Your task to perform on an android device: manage bookmarks in the chrome app Image 0: 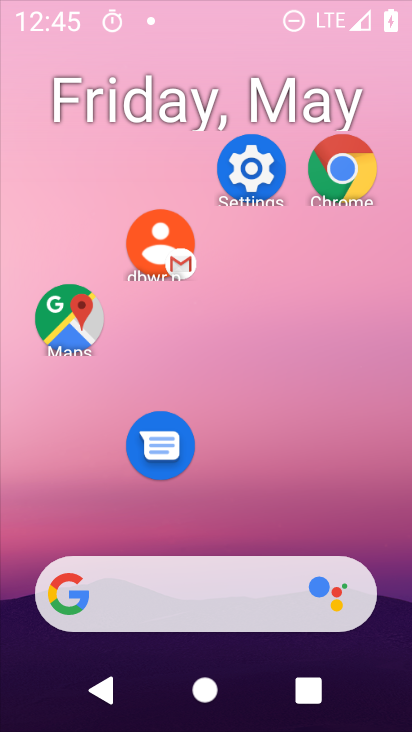
Step 0: click (256, 71)
Your task to perform on an android device: manage bookmarks in the chrome app Image 1: 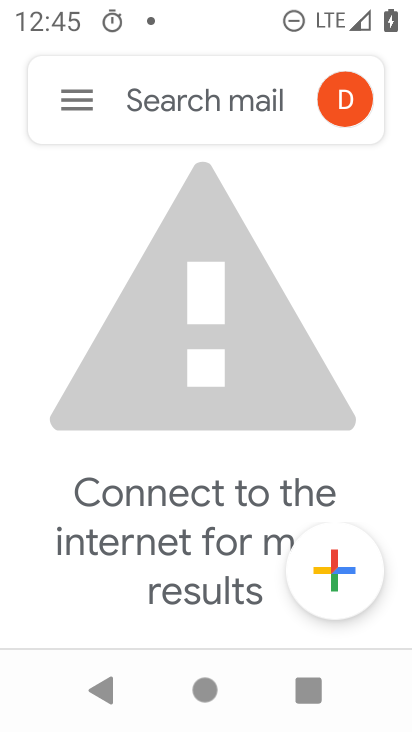
Step 1: drag from (106, 581) to (222, 138)
Your task to perform on an android device: manage bookmarks in the chrome app Image 2: 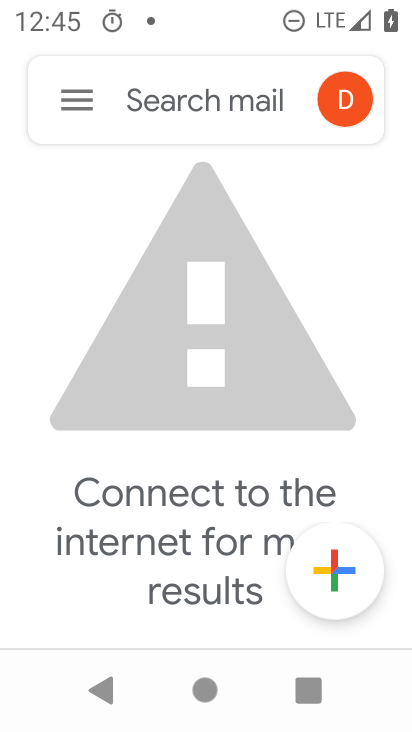
Step 2: click (84, 104)
Your task to perform on an android device: manage bookmarks in the chrome app Image 3: 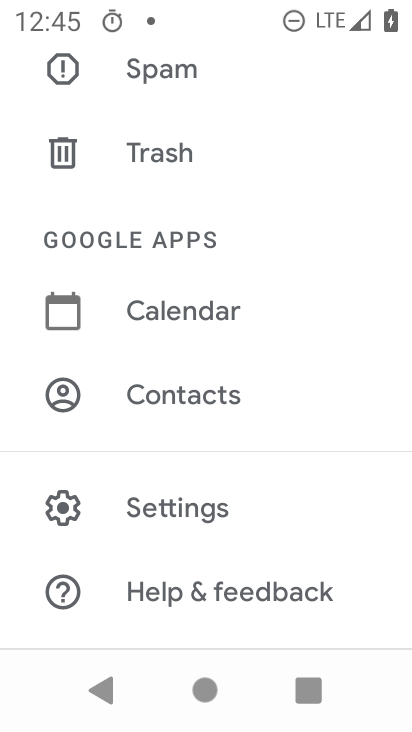
Step 3: press home button
Your task to perform on an android device: manage bookmarks in the chrome app Image 4: 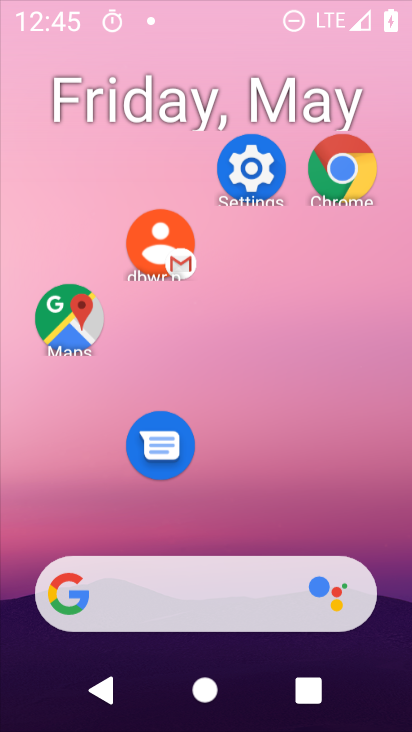
Step 4: drag from (234, 541) to (310, 105)
Your task to perform on an android device: manage bookmarks in the chrome app Image 5: 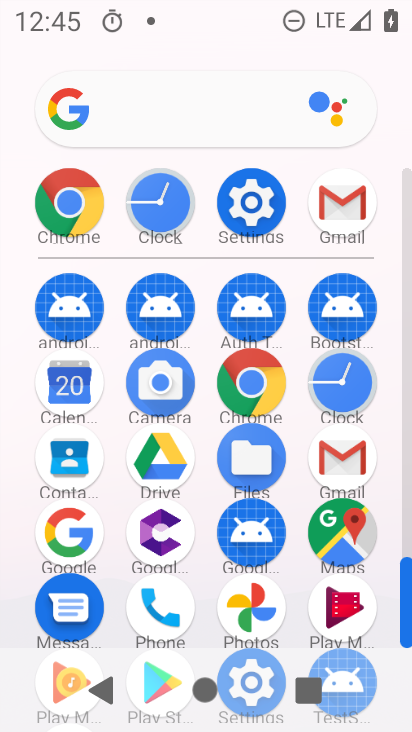
Step 5: click (248, 380)
Your task to perform on an android device: manage bookmarks in the chrome app Image 6: 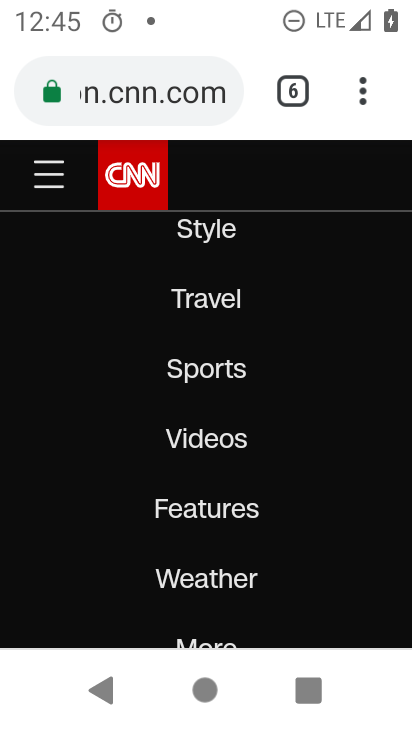
Step 6: drag from (248, 380) to (325, 92)
Your task to perform on an android device: manage bookmarks in the chrome app Image 7: 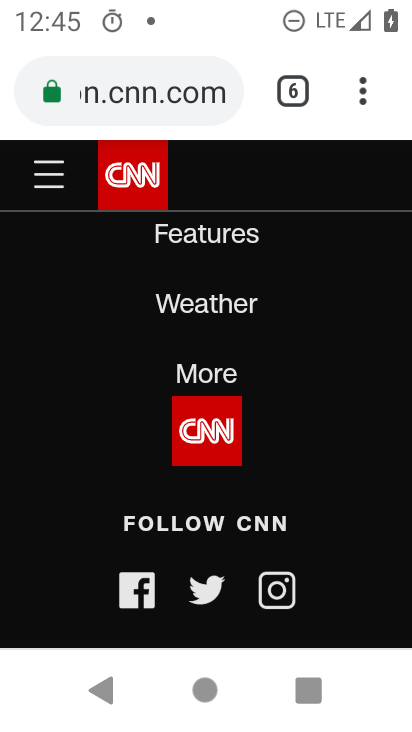
Step 7: click (361, 103)
Your task to perform on an android device: manage bookmarks in the chrome app Image 8: 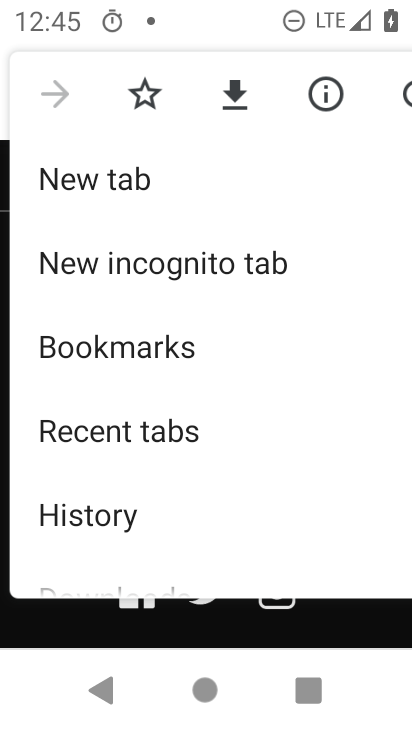
Step 8: drag from (172, 495) to (225, 219)
Your task to perform on an android device: manage bookmarks in the chrome app Image 9: 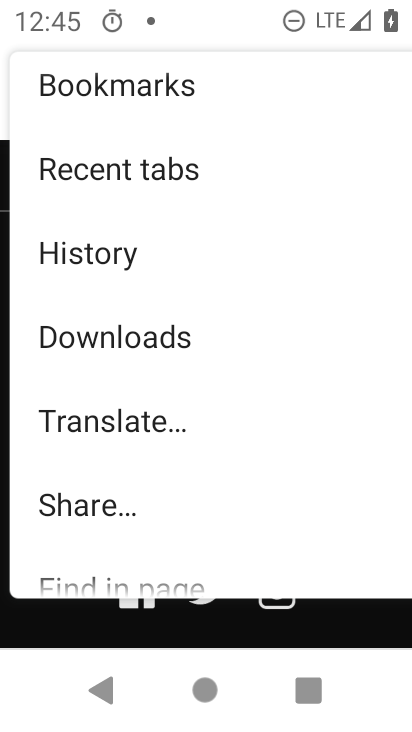
Step 9: click (174, 172)
Your task to perform on an android device: manage bookmarks in the chrome app Image 10: 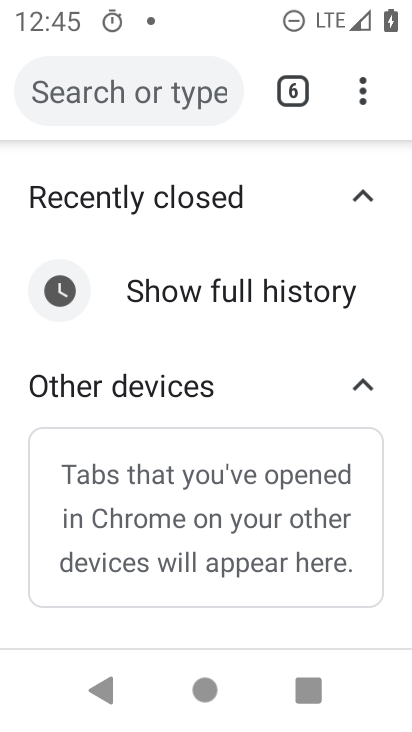
Step 10: click (365, 105)
Your task to perform on an android device: manage bookmarks in the chrome app Image 11: 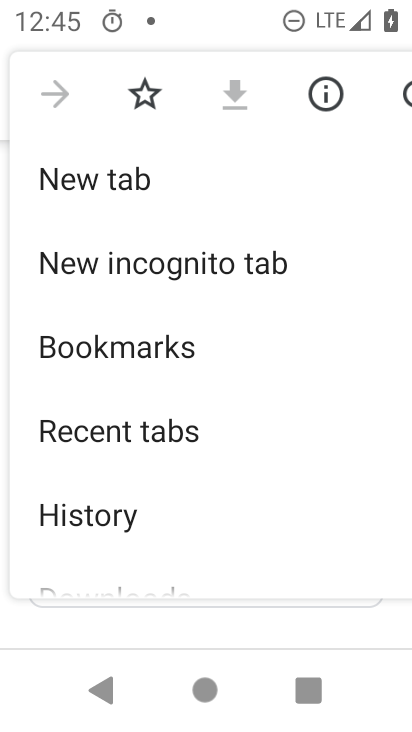
Step 11: click (169, 333)
Your task to perform on an android device: manage bookmarks in the chrome app Image 12: 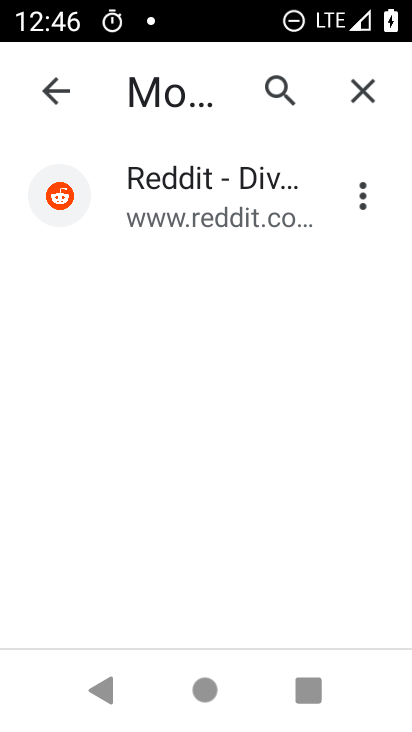
Step 12: drag from (181, 551) to (234, 225)
Your task to perform on an android device: manage bookmarks in the chrome app Image 13: 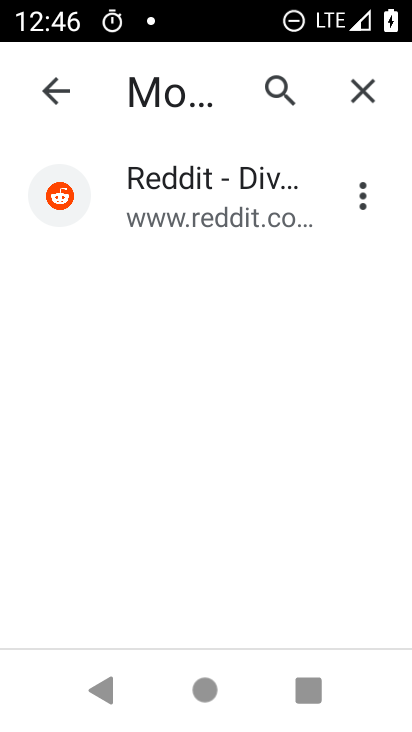
Step 13: drag from (213, 444) to (216, 234)
Your task to perform on an android device: manage bookmarks in the chrome app Image 14: 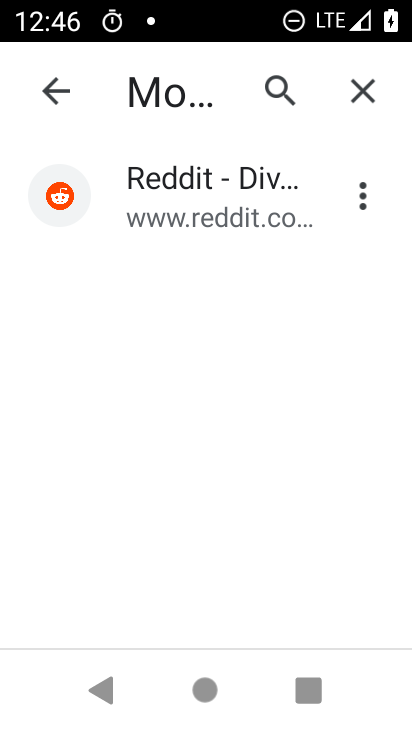
Step 14: click (347, 185)
Your task to perform on an android device: manage bookmarks in the chrome app Image 15: 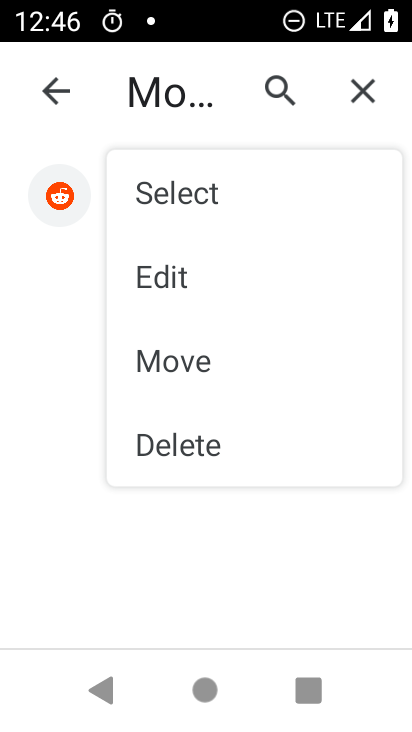
Step 15: click (216, 274)
Your task to perform on an android device: manage bookmarks in the chrome app Image 16: 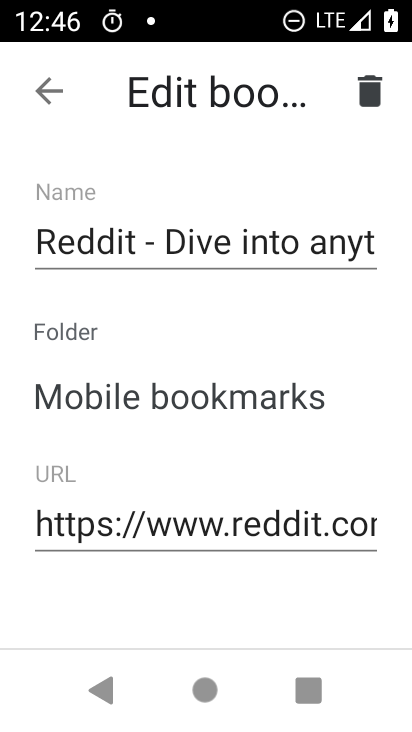
Step 16: click (255, 120)
Your task to perform on an android device: manage bookmarks in the chrome app Image 17: 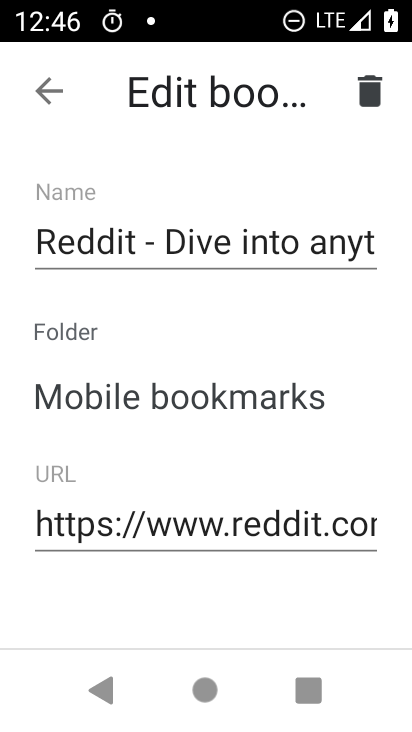
Step 17: click (132, 538)
Your task to perform on an android device: manage bookmarks in the chrome app Image 18: 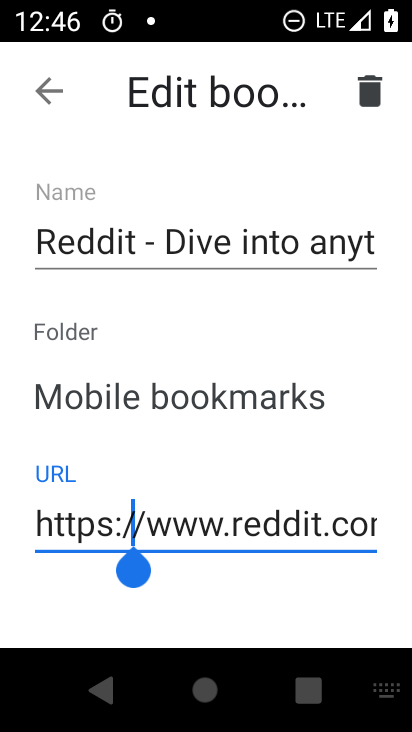
Step 18: task complete